Your task to perform on an android device: What's the weather today? Image 0: 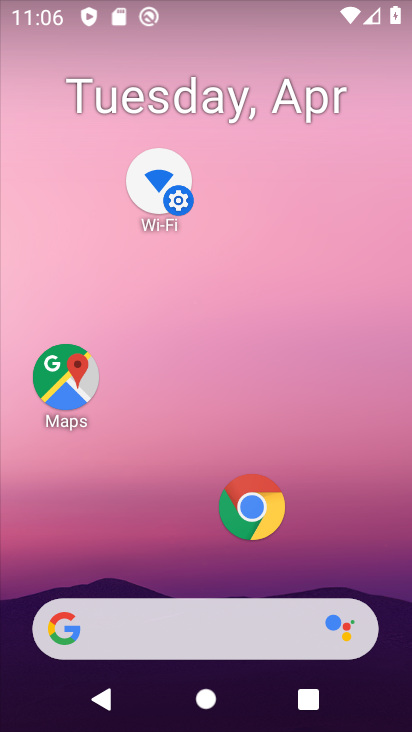
Step 0: click (216, 616)
Your task to perform on an android device: What's the weather today? Image 1: 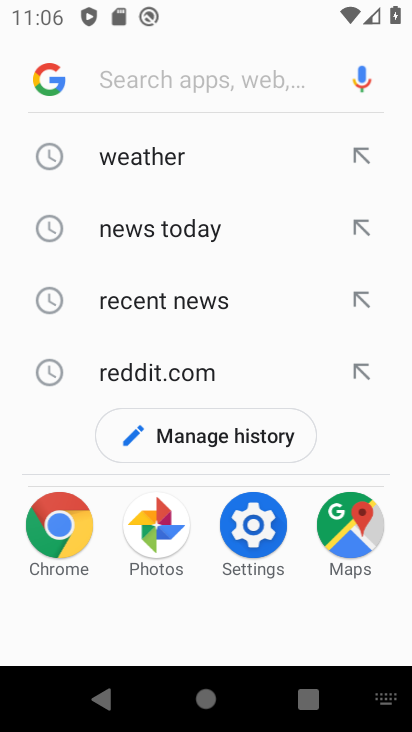
Step 1: click (151, 148)
Your task to perform on an android device: What's the weather today? Image 2: 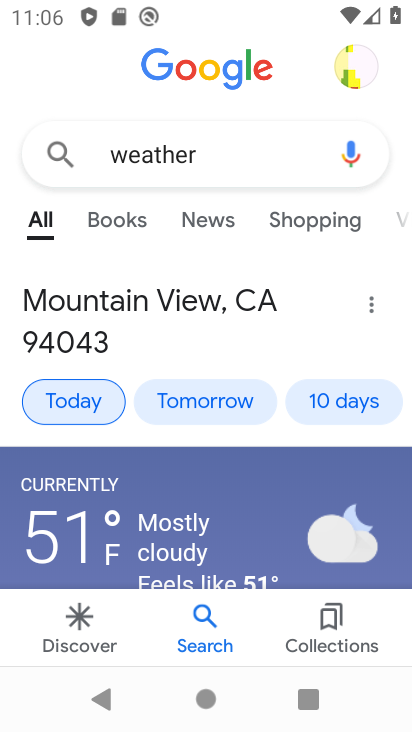
Step 2: task complete